Your task to perform on an android device: stop showing notifications on the lock screen Image 0: 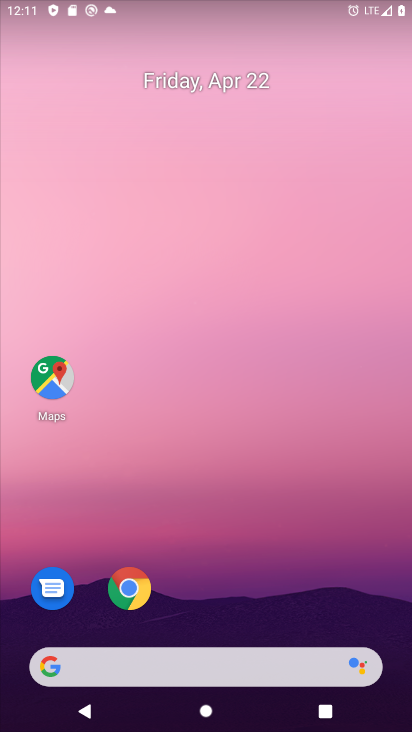
Step 0: drag from (256, 690) to (345, 10)
Your task to perform on an android device: stop showing notifications on the lock screen Image 1: 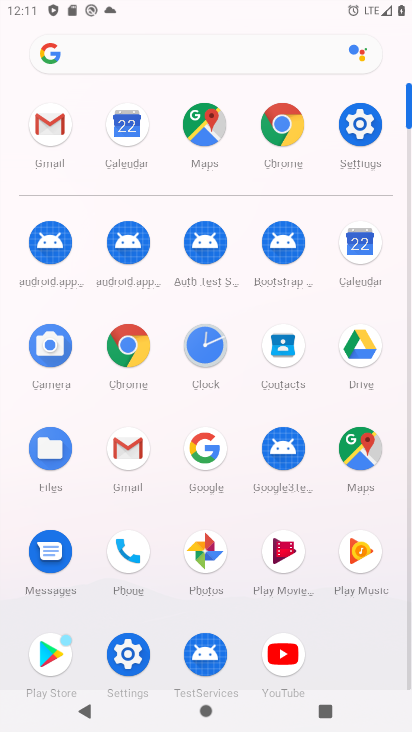
Step 1: click (135, 641)
Your task to perform on an android device: stop showing notifications on the lock screen Image 2: 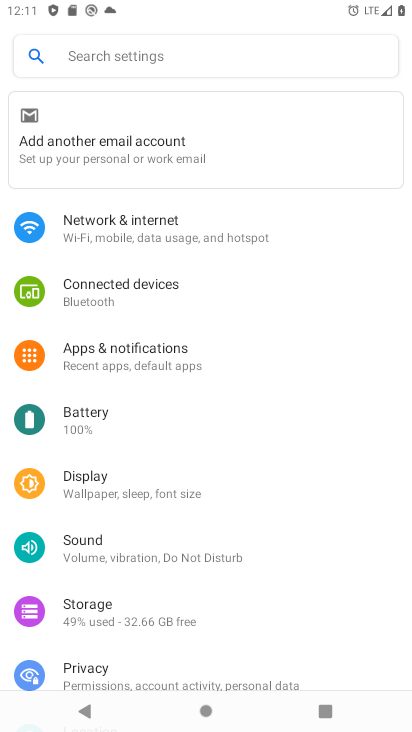
Step 2: click (186, 60)
Your task to perform on an android device: stop showing notifications on the lock screen Image 3: 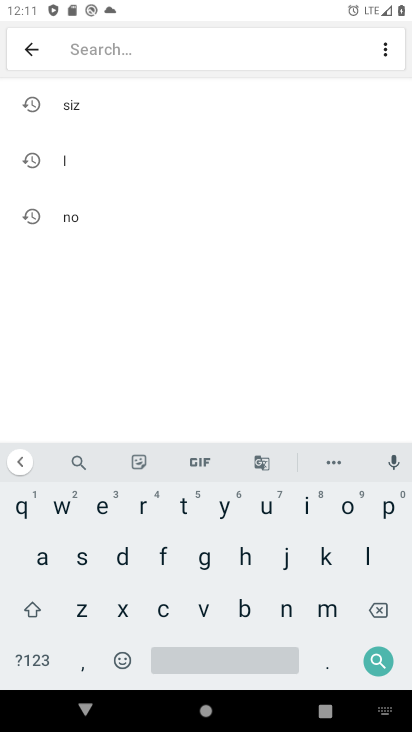
Step 3: click (82, 215)
Your task to perform on an android device: stop showing notifications on the lock screen Image 4: 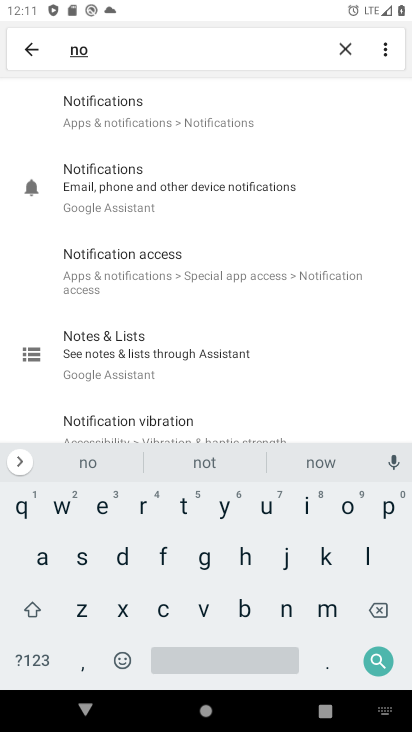
Step 4: click (143, 114)
Your task to perform on an android device: stop showing notifications on the lock screen Image 5: 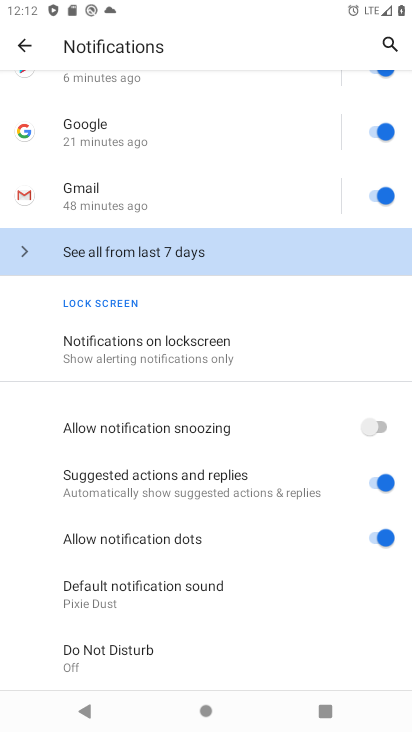
Step 5: click (104, 351)
Your task to perform on an android device: stop showing notifications on the lock screen Image 6: 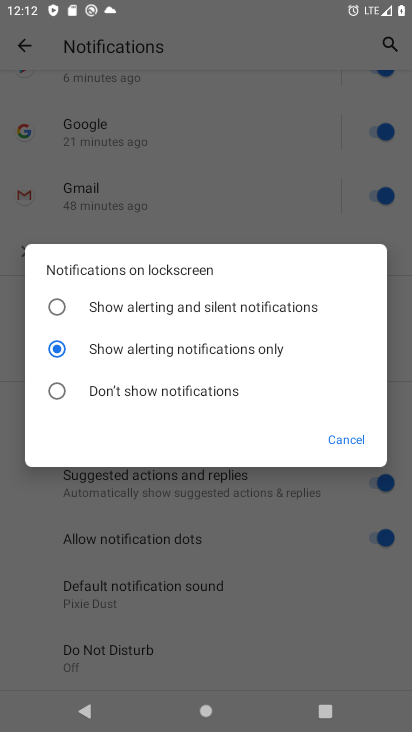
Step 6: click (113, 391)
Your task to perform on an android device: stop showing notifications on the lock screen Image 7: 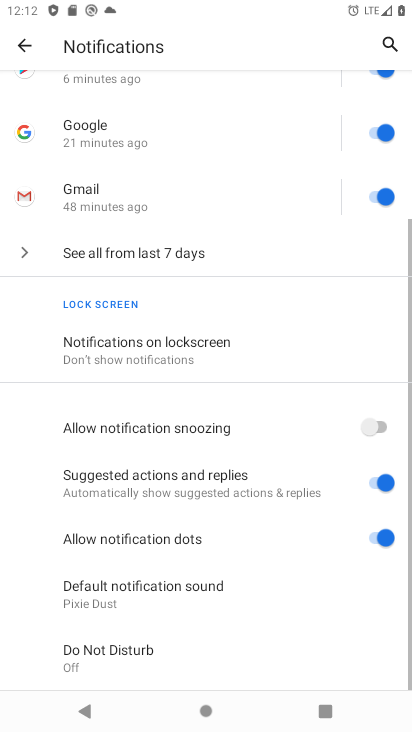
Step 7: task complete